Your task to perform on an android device: Go to Wikipedia Image 0: 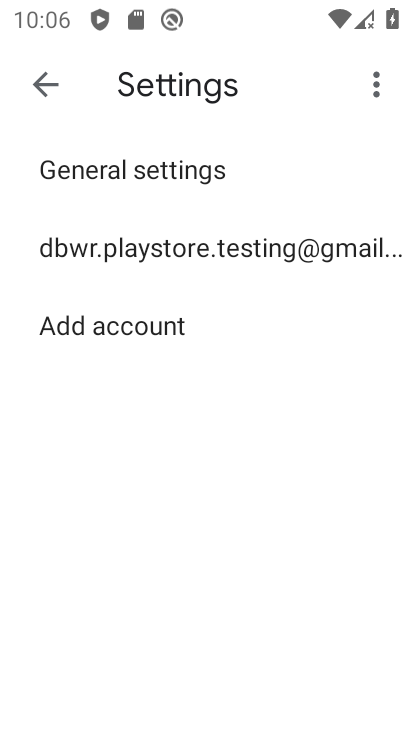
Step 0: press home button
Your task to perform on an android device: Go to Wikipedia Image 1: 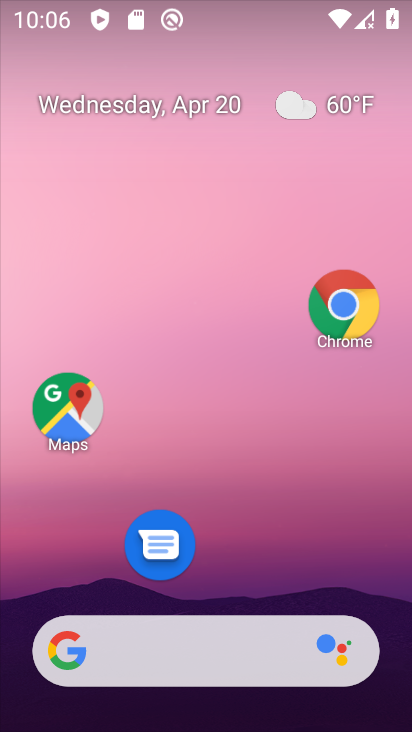
Step 1: drag from (288, 603) to (301, 101)
Your task to perform on an android device: Go to Wikipedia Image 2: 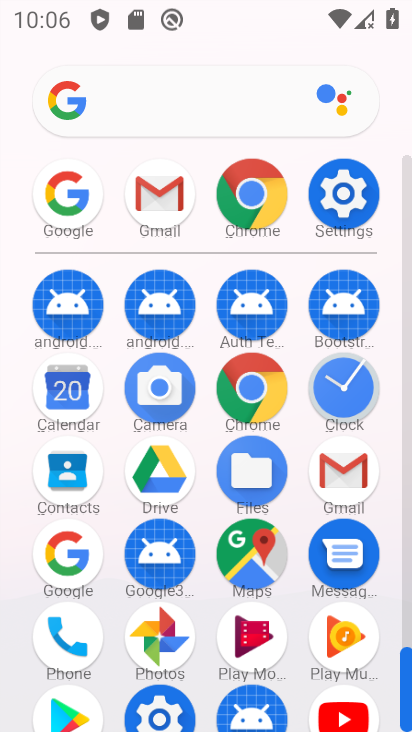
Step 2: click (255, 400)
Your task to perform on an android device: Go to Wikipedia Image 3: 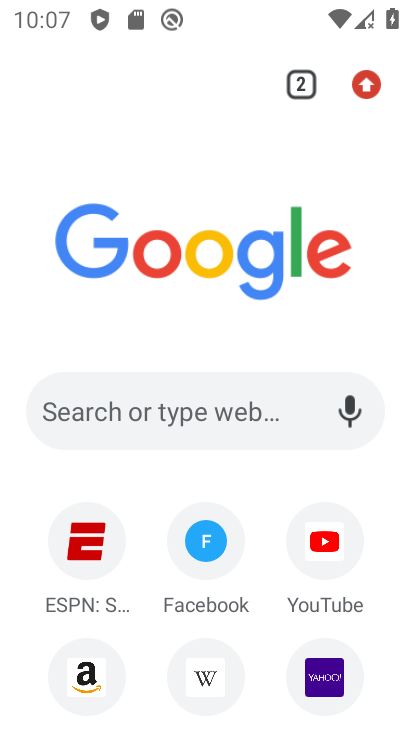
Step 3: click (214, 688)
Your task to perform on an android device: Go to Wikipedia Image 4: 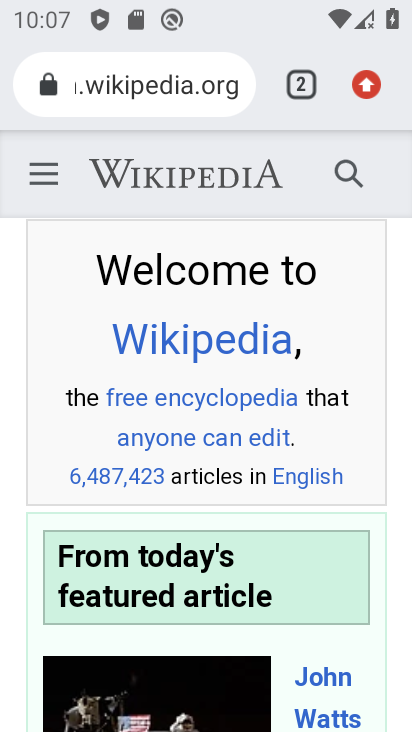
Step 4: task complete